Your task to perform on an android device: open app "File Manager" Image 0: 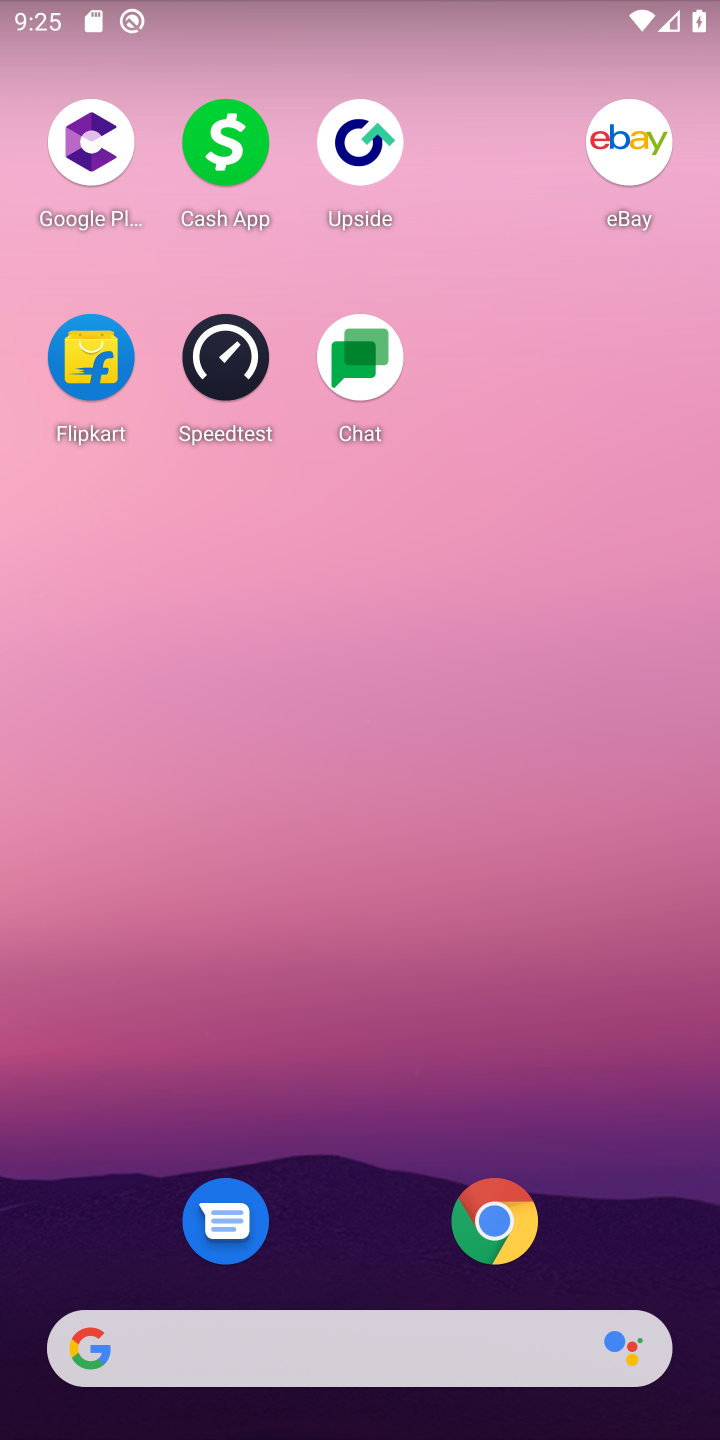
Step 0: drag from (385, 1105) to (329, 368)
Your task to perform on an android device: open app "File Manager" Image 1: 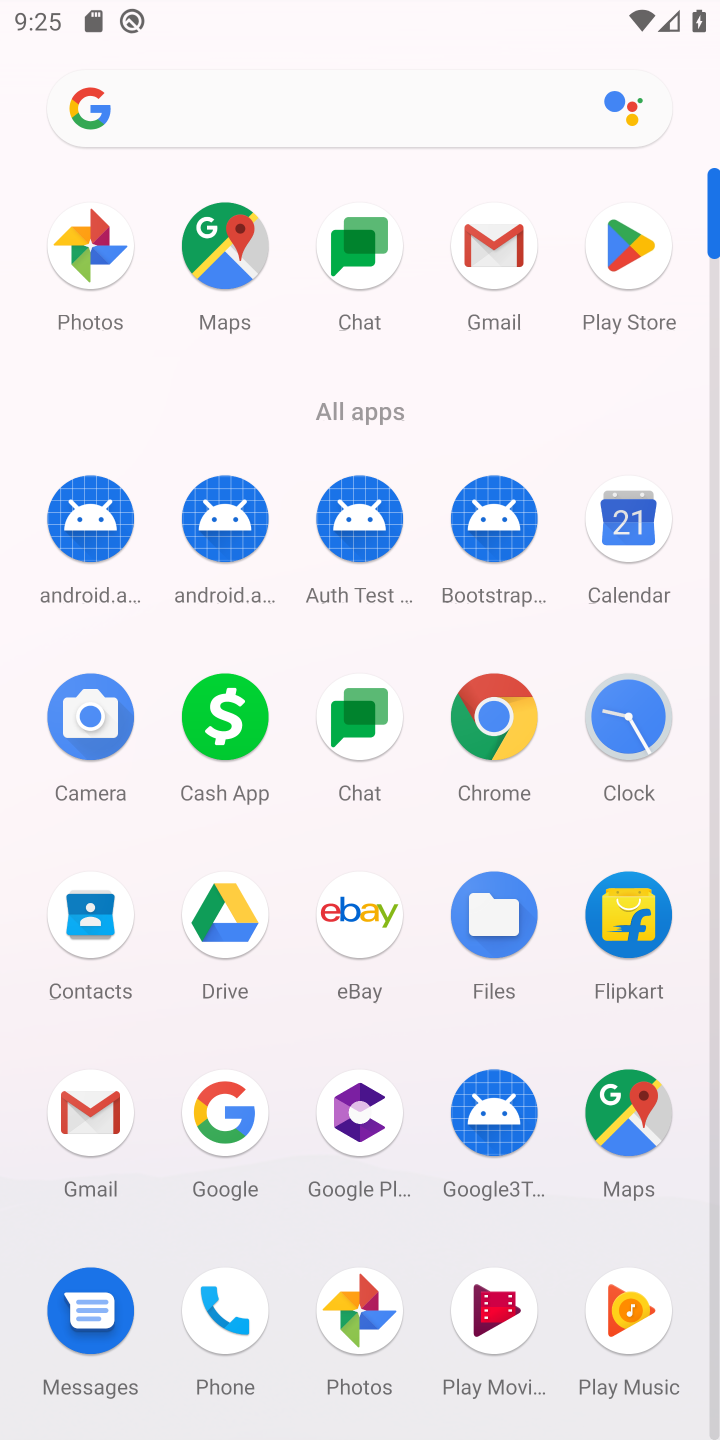
Step 1: click (614, 237)
Your task to perform on an android device: open app "File Manager" Image 2: 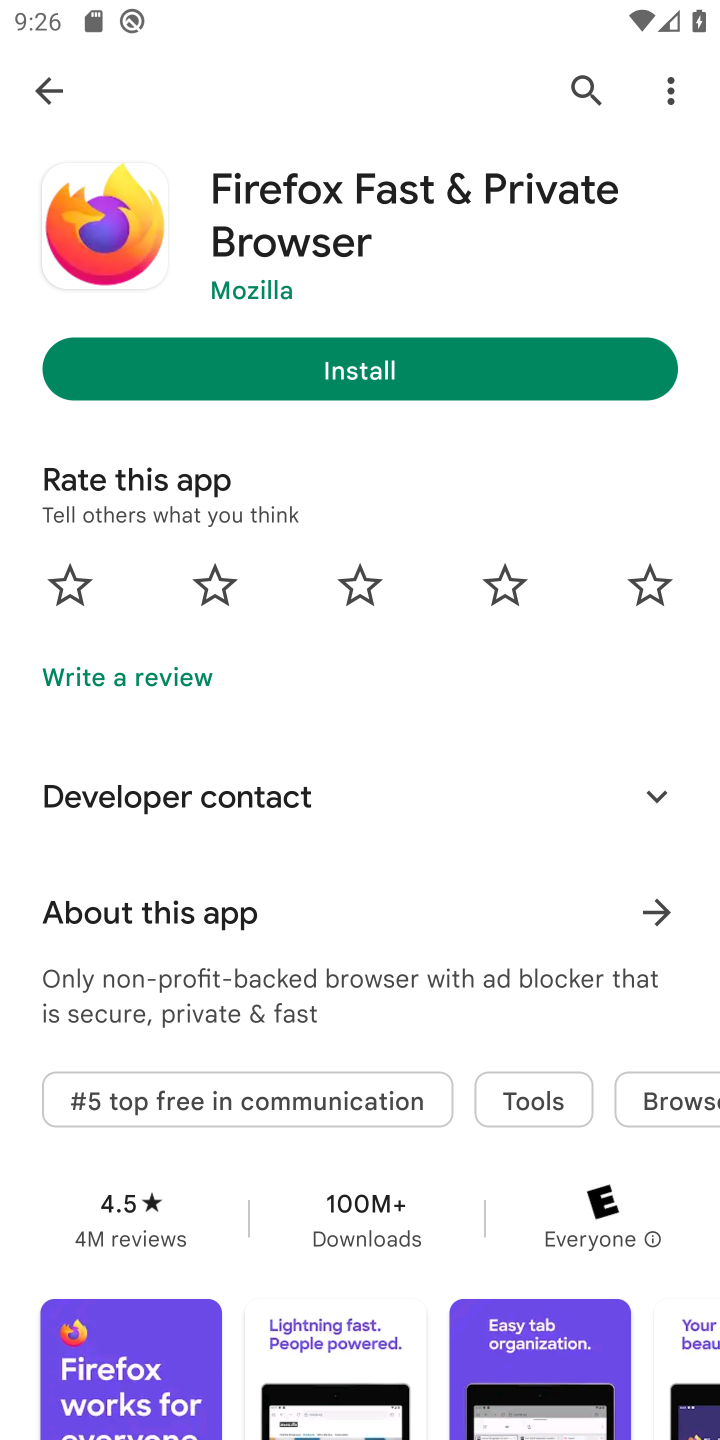
Step 2: click (575, 94)
Your task to perform on an android device: open app "File Manager" Image 3: 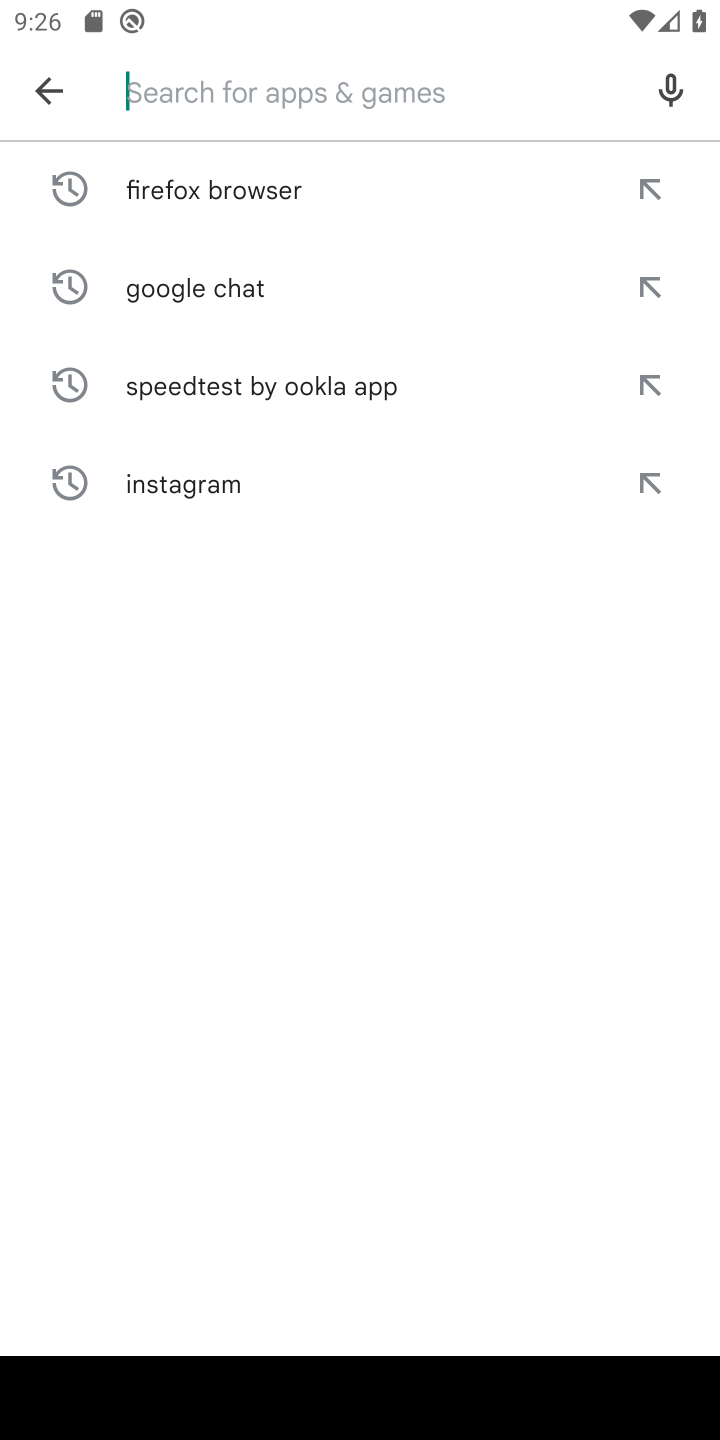
Step 3: type "File Manager"
Your task to perform on an android device: open app "File Manager" Image 4: 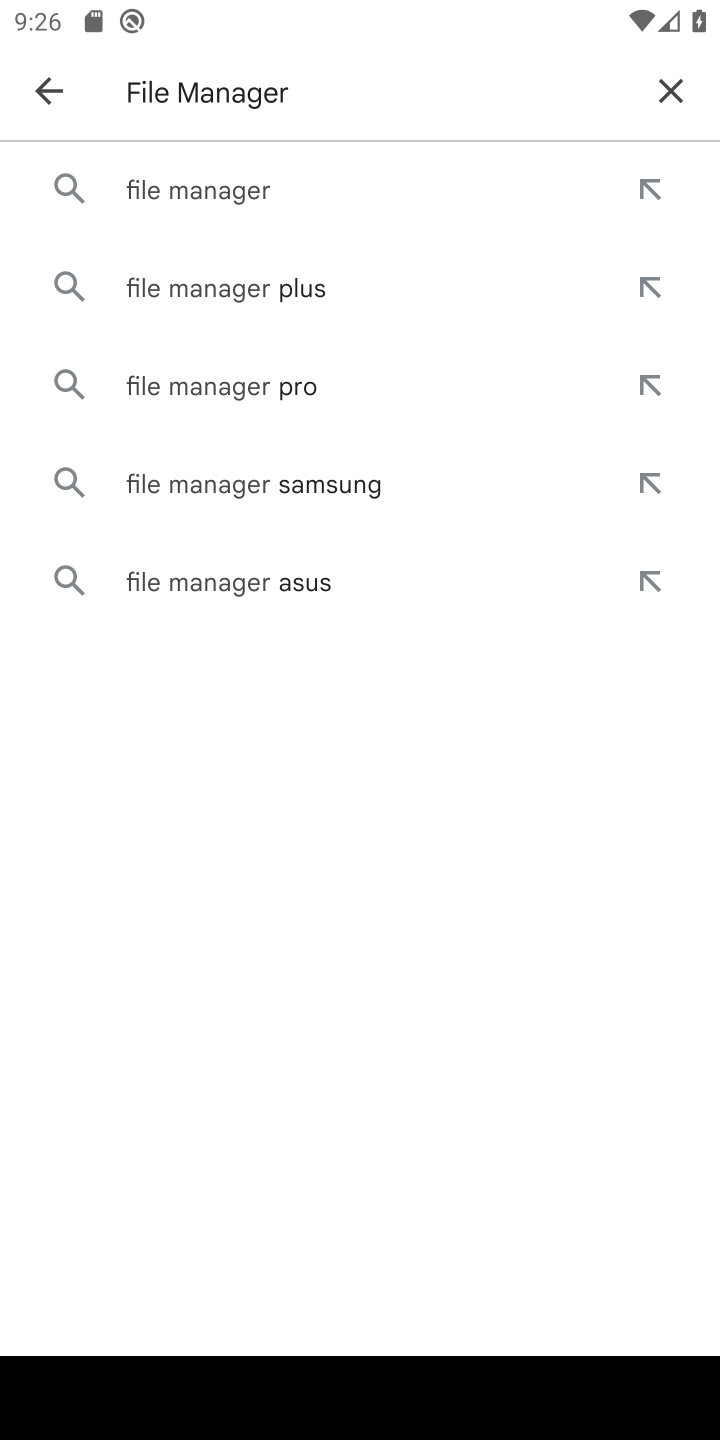
Step 4: click (253, 210)
Your task to perform on an android device: open app "File Manager" Image 5: 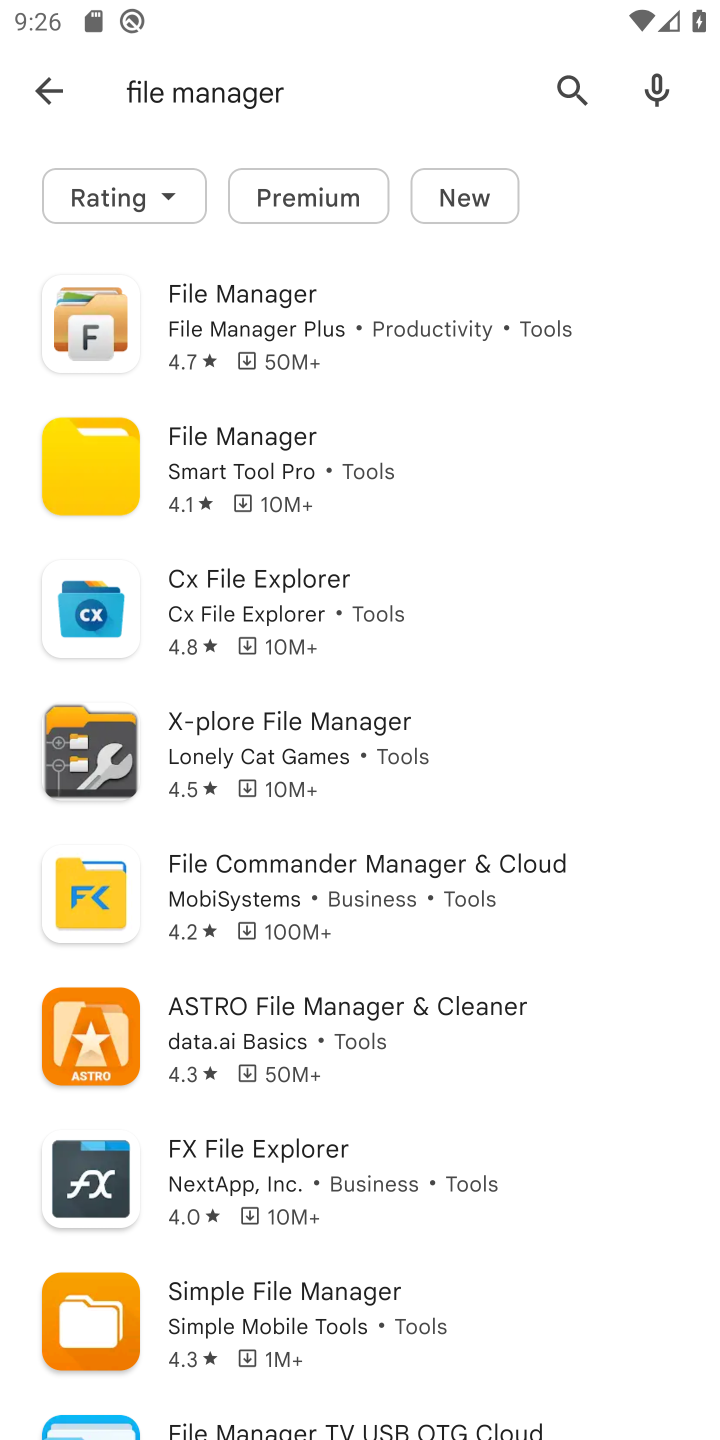
Step 5: click (280, 307)
Your task to perform on an android device: open app "File Manager" Image 6: 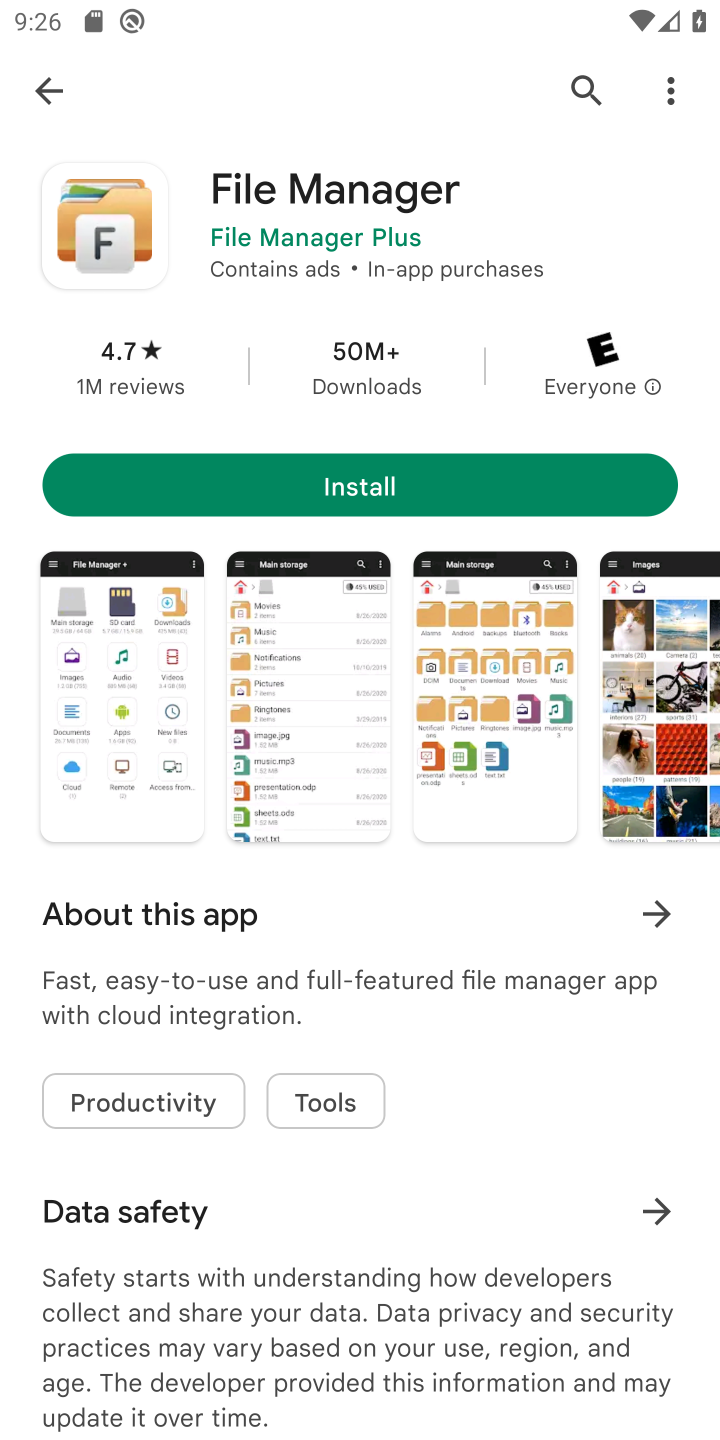
Step 6: task complete